Your task to perform on an android device: Open Maps and search for coffee Image 0: 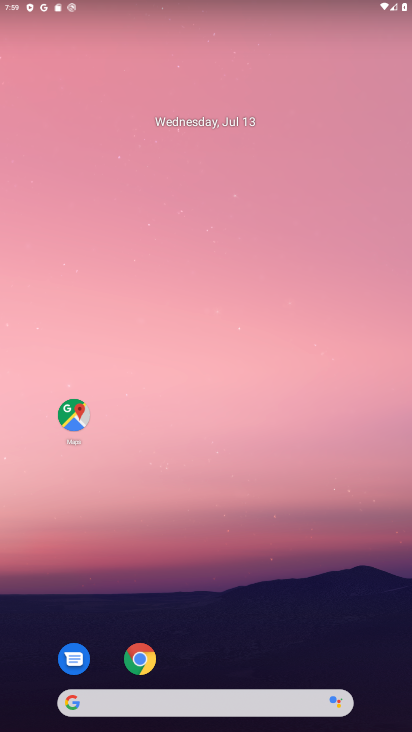
Step 0: click (79, 425)
Your task to perform on an android device: Open Maps and search for coffee Image 1: 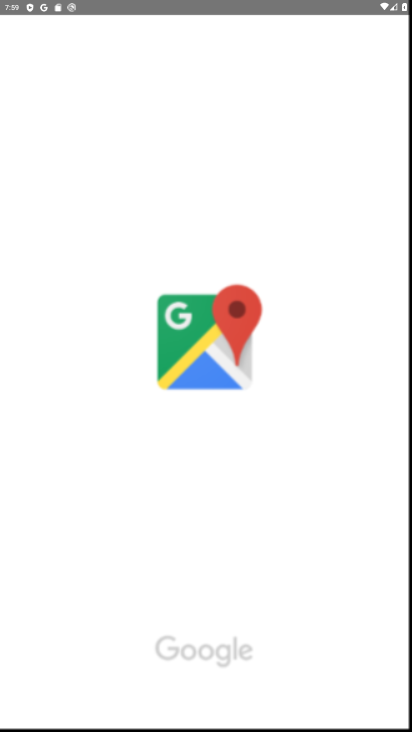
Step 1: task complete